Your task to perform on an android device: Go to display settings Image 0: 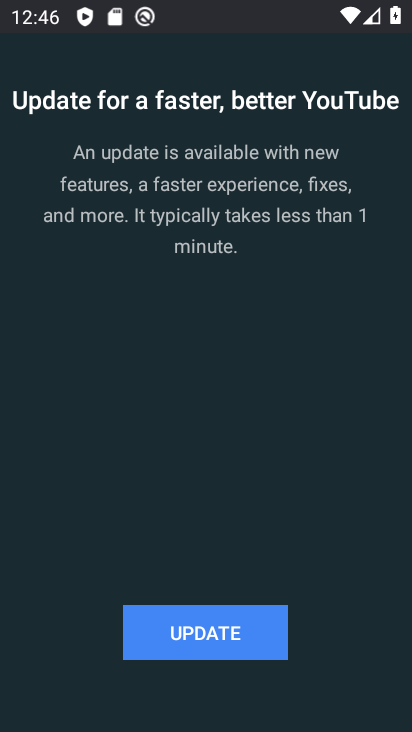
Step 0: press home button
Your task to perform on an android device: Go to display settings Image 1: 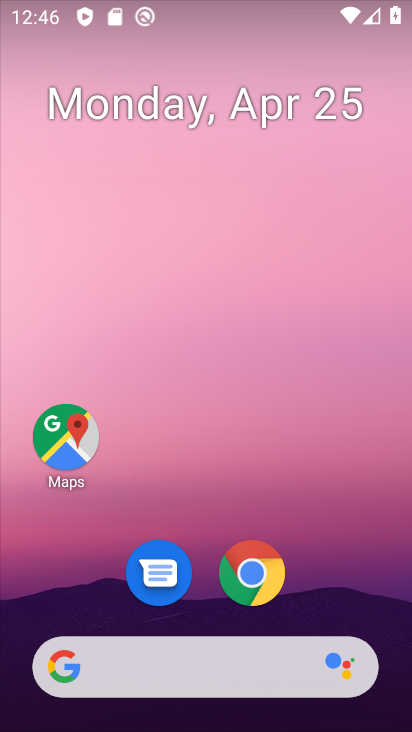
Step 1: drag from (210, 550) to (215, 168)
Your task to perform on an android device: Go to display settings Image 2: 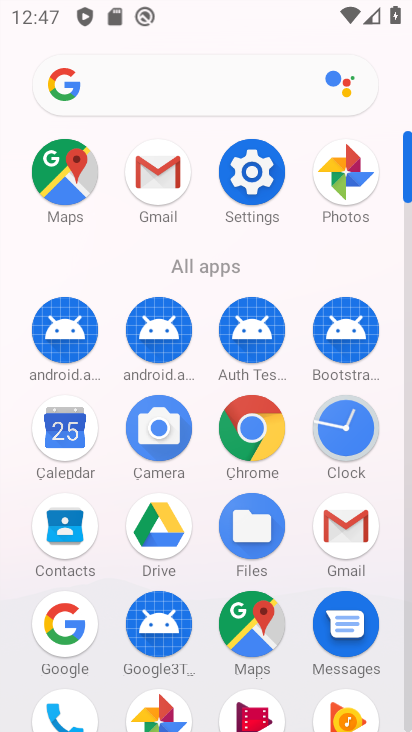
Step 2: click (267, 178)
Your task to perform on an android device: Go to display settings Image 3: 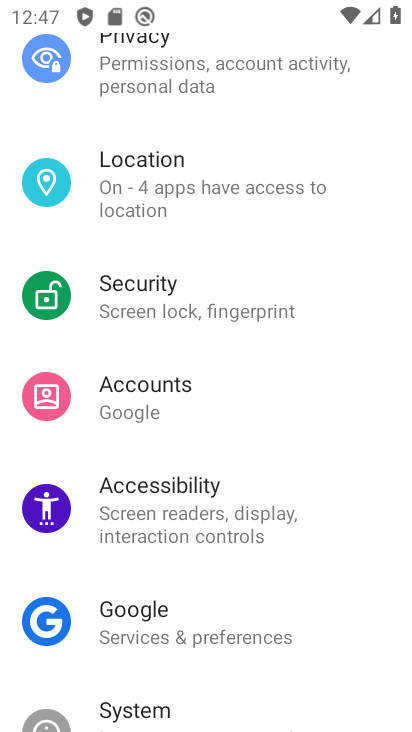
Step 3: drag from (211, 145) to (308, 720)
Your task to perform on an android device: Go to display settings Image 4: 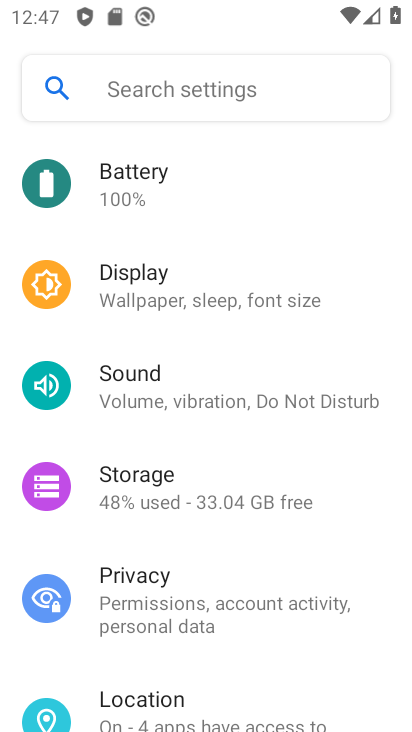
Step 4: drag from (197, 180) to (216, 326)
Your task to perform on an android device: Go to display settings Image 5: 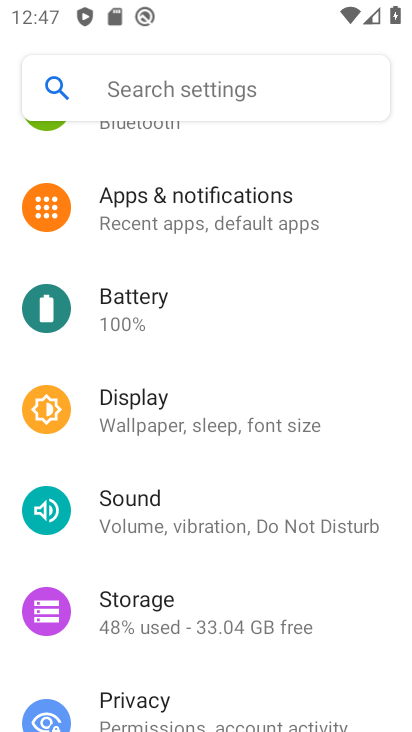
Step 5: click (219, 411)
Your task to perform on an android device: Go to display settings Image 6: 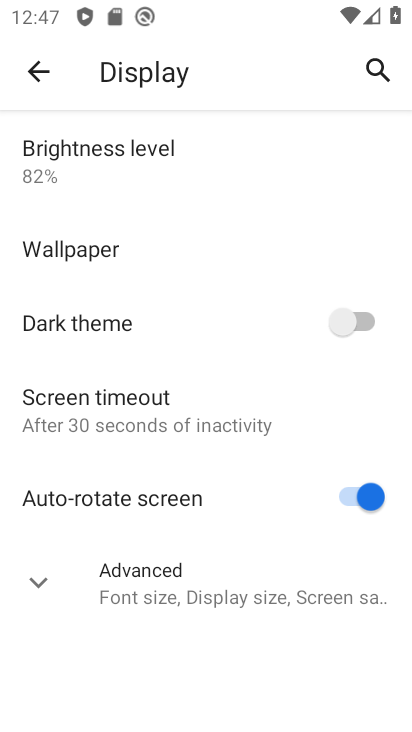
Step 6: task complete